Your task to perform on an android device: see creations saved in the google photos Image 0: 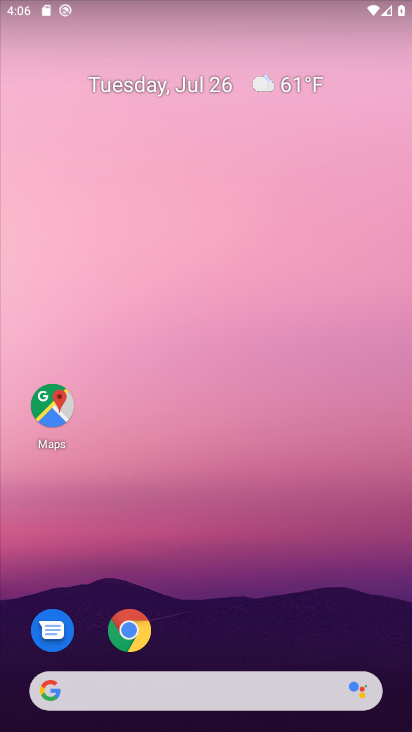
Step 0: click (152, 177)
Your task to perform on an android device: see creations saved in the google photos Image 1: 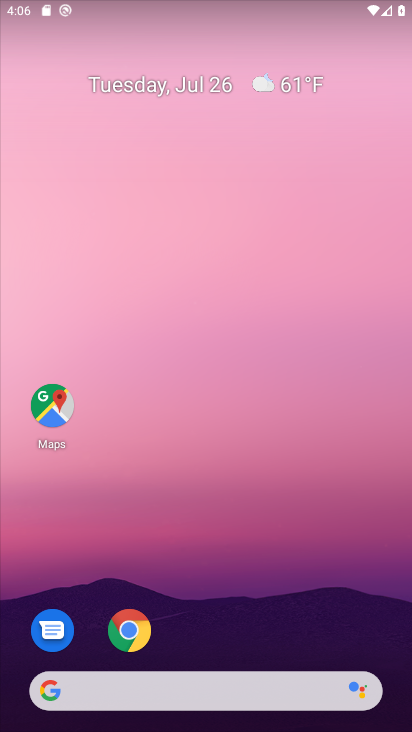
Step 1: drag from (219, 480) to (199, 116)
Your task to perform on an android device: see creations saved in the google photos Image 2: 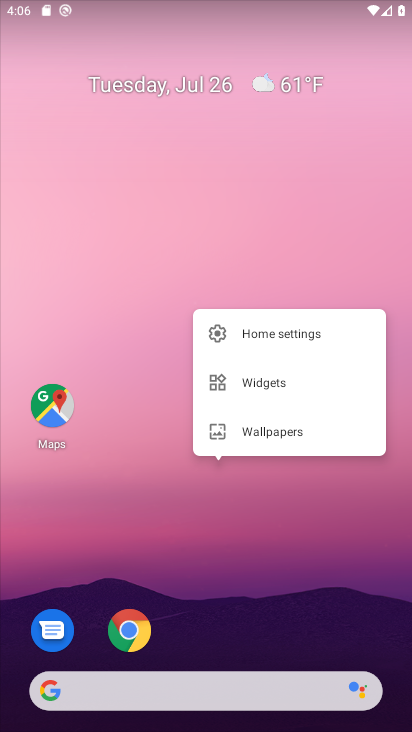
Step 2: drag from (215, 469) to (233, 198)
Your task to perform on an android device: see creations saved in the google photos Image 3: 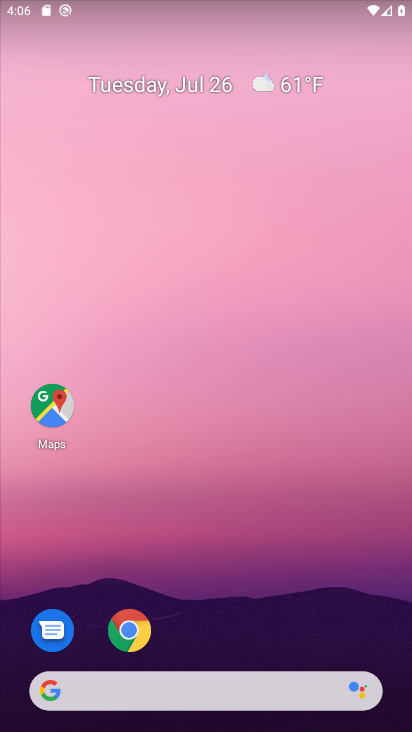
Step 3: drag from (254, 382) to (231, 261)
Your task to perform on an android device: see creations saved in the google photos Image 4: 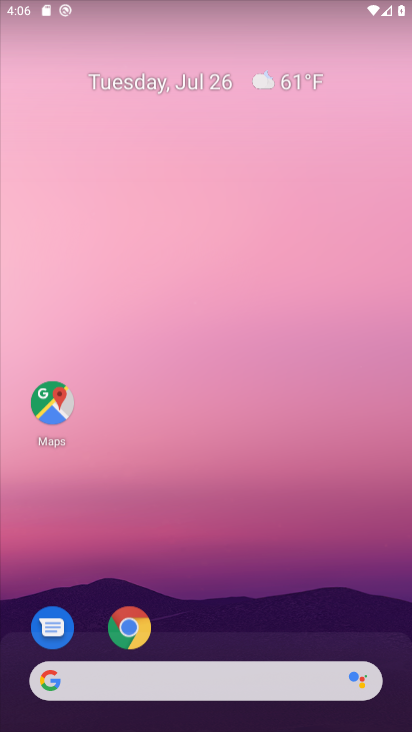
Step 4: drag from (229, 483) to (214, 332)
Your task to perform on an android device: see creations saved in the google photos Image 5: 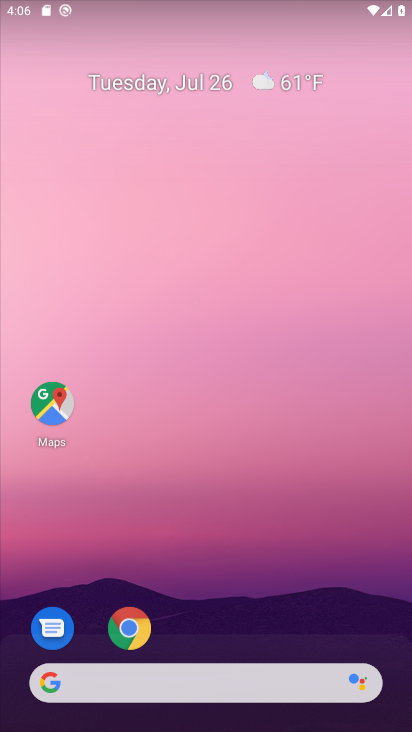
Step 5: drag from (288, 505) to (290, 41)
Your task to perform on an android device: see creations saved in the google photos Image 6: 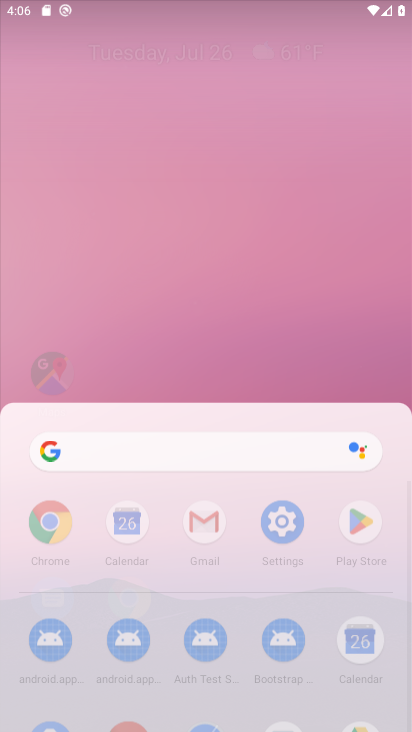
Step 6: drag from (325, 463) to (289, 249)
Your task to perform on an android device: see creations saved in the google photos Image 7: 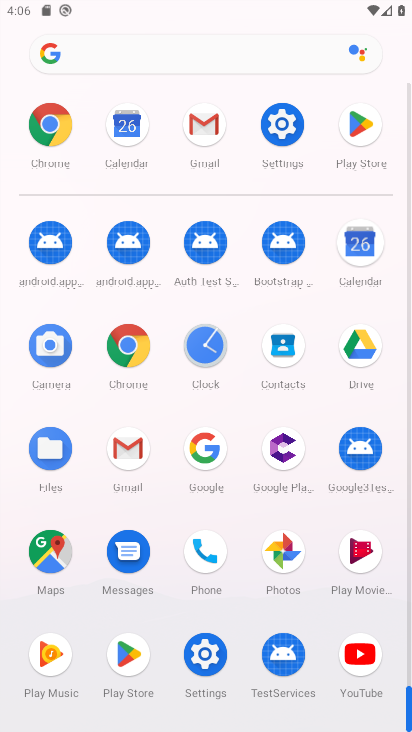
Step 7: drag from (244, 476) to (246, 137)
Your task to perform on an android device: see creations saved in the google photos Image 8: 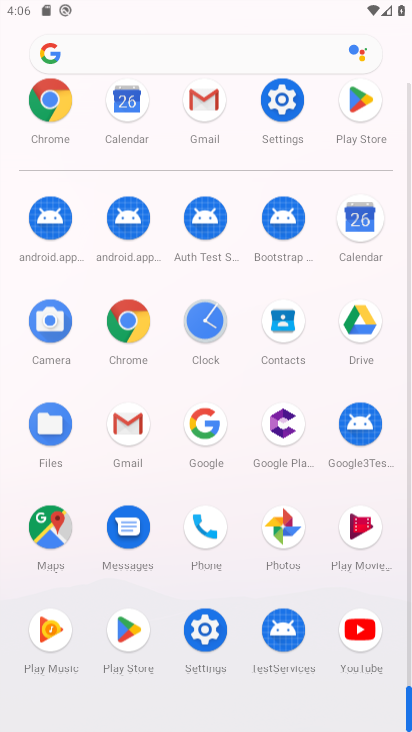
Step 8: drag from (213, 308) to (207, 191)
Your task to perform on an android device: see creations saved in the google photos Image 9: 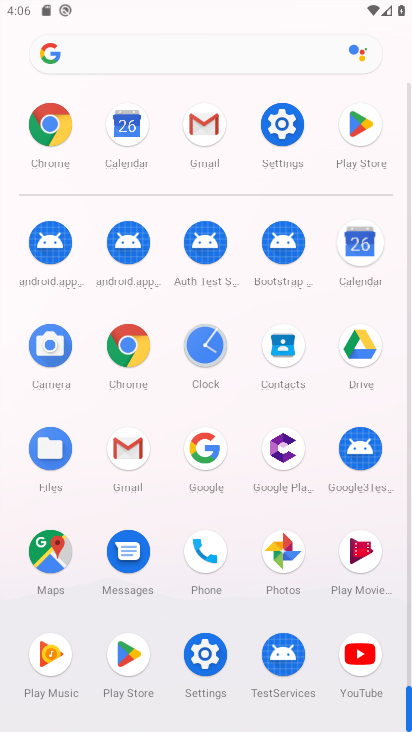
Step 9: drag from (253, 455) to (264, 183)
Your task to perform on an android device: see creations saved in the google photos Image 10: 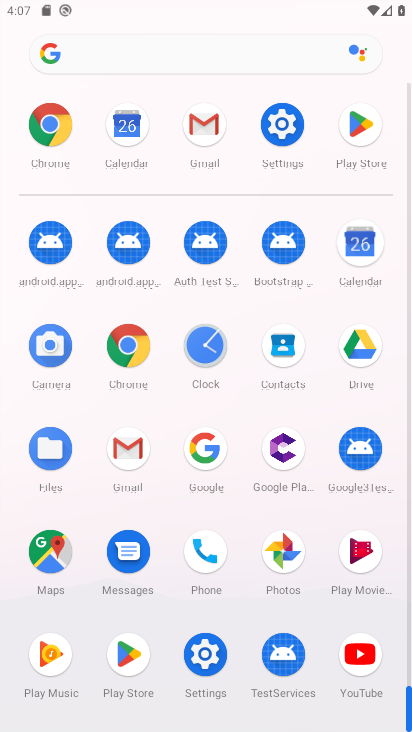
Step 10: click (286, 546)
Your task to perform on an android device: see creations saved in the google photos Image 11: 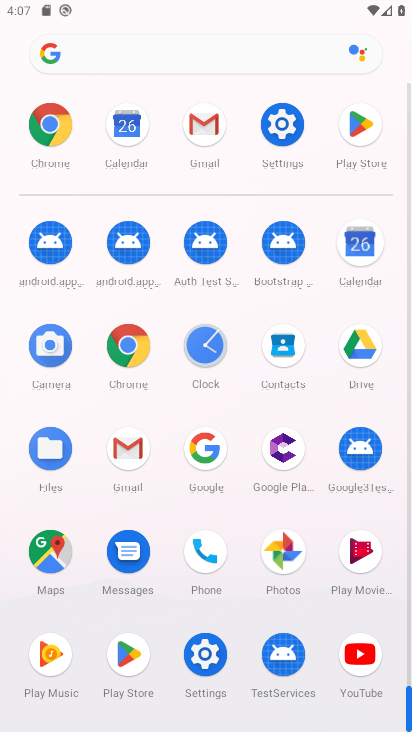
Step 11: click (285, 545)
Your task to perform on an android device: see creations saved in the google photos Image 12: 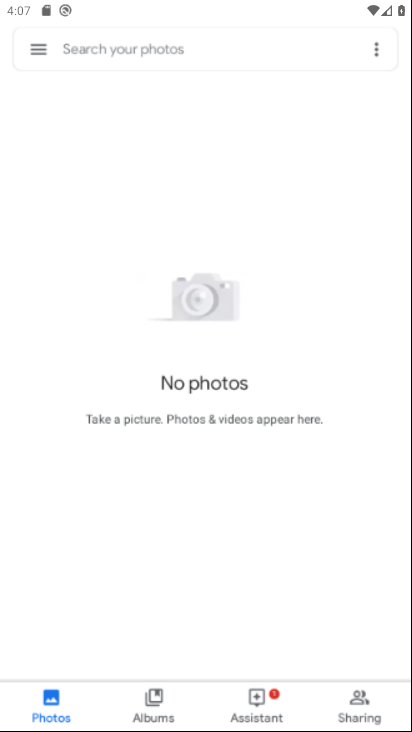
Step 12: click (285, 546)
Your task to perform on an android device: see creations saved in the google photos Image 13: 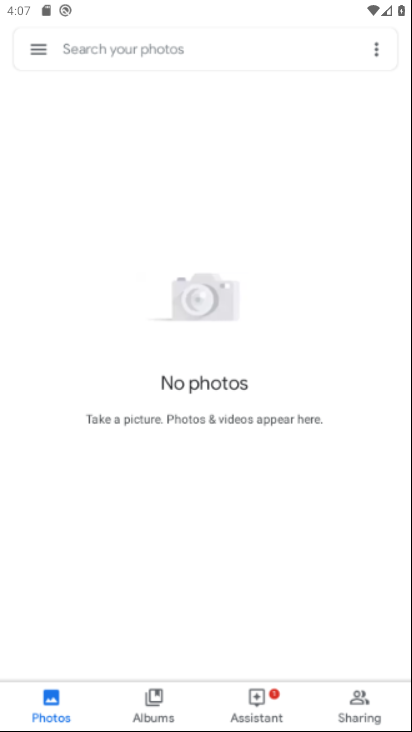
Step 13: click (285, 546)
Your task to perform on an android device: see creations saved in the google photos Image 14: 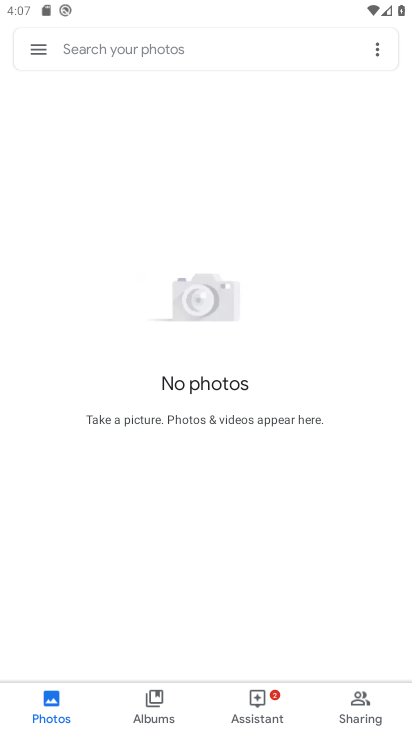
Step 14: click (39, 57)
Your task to perform on an android device: see creations saved in the google photos Image 15: 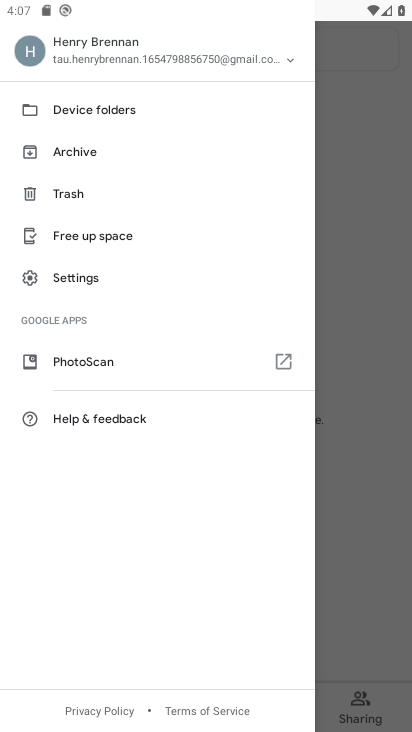
Step 15: click (70, 190)
Your task to perform on an android device: see creations saved in the google photos Image 16: 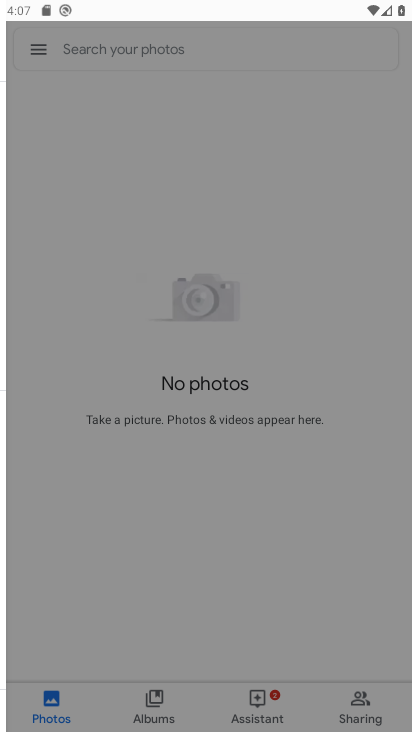
Step 16: click (84, 193)
Your task to perform on an android device: see creations saved in the google photos Image 17: 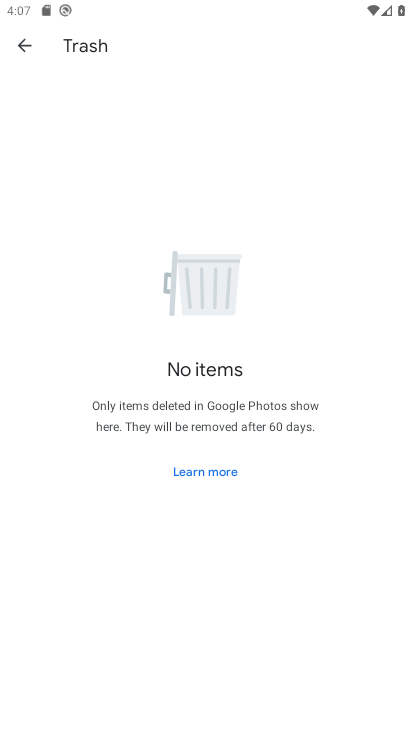
Step 17: click (85, 194)
Your task to perform on an android device: see creations saved in the google photos Image 18: 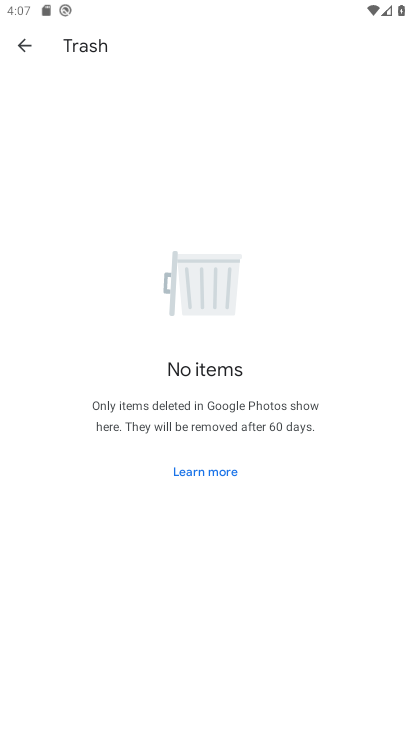
Step 18: click (23, 42)
Your task to perform on an android device: see creations saved in the google photos Image 19: 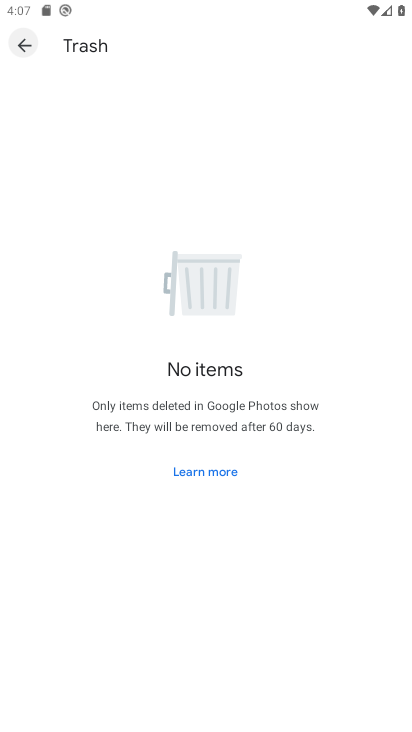
Step 19: click (23, 42)
Your task to perform on an android device: see creations saved in the google photos Image 20: 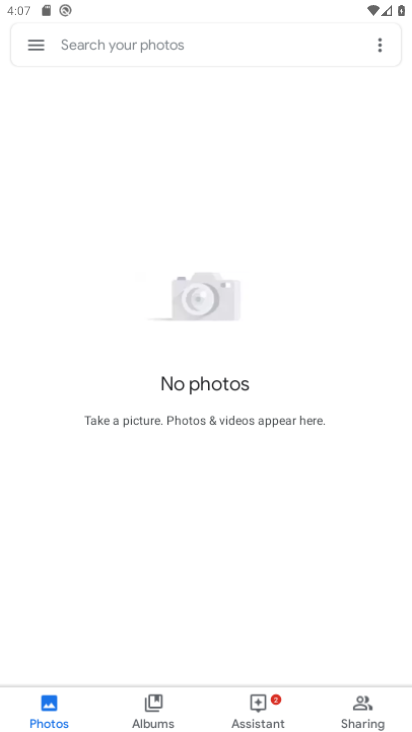
Step 20: click (27, 43)
Your task to perform on an android device: see creations saved in the google photos Image 21: 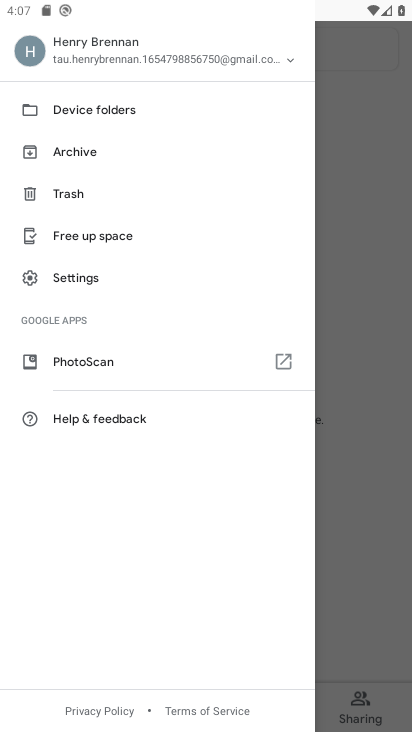
Step 21: click (357, 230)
Your task to perform on an android device: see creations saved in the google photos Image 22: 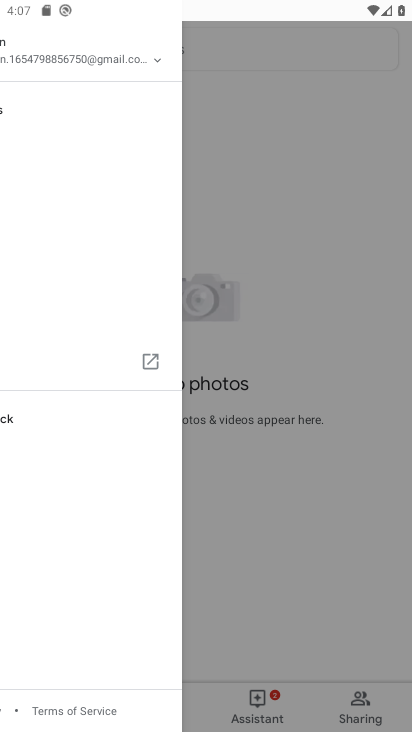
Step 22: click (363, 240)
Your task to perform on an android device: see creations saved in the google photos Image 23: 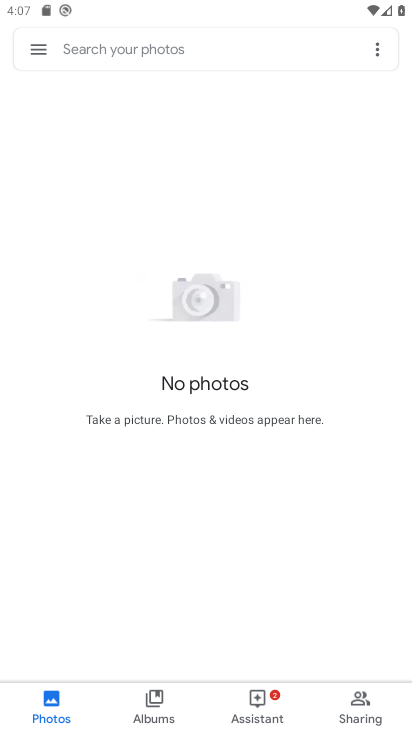
Step 23: click (48, 706)
Your task to perform on an android device: see creations saved in the google photos Image 24: 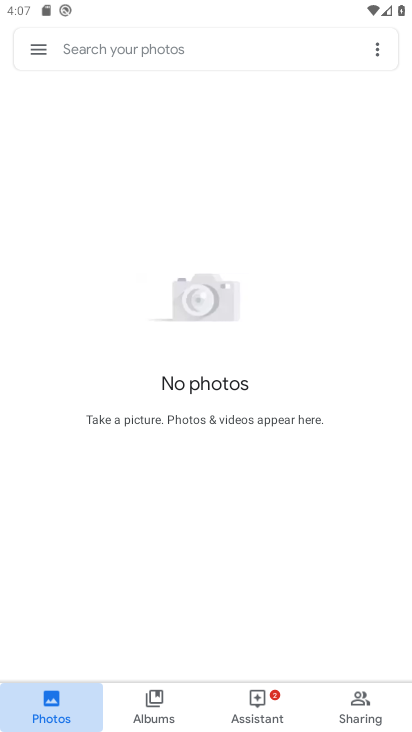
Step 24: click (48, 705)
Your task to perform on an android device: see creations saved in the google photos Image 25: 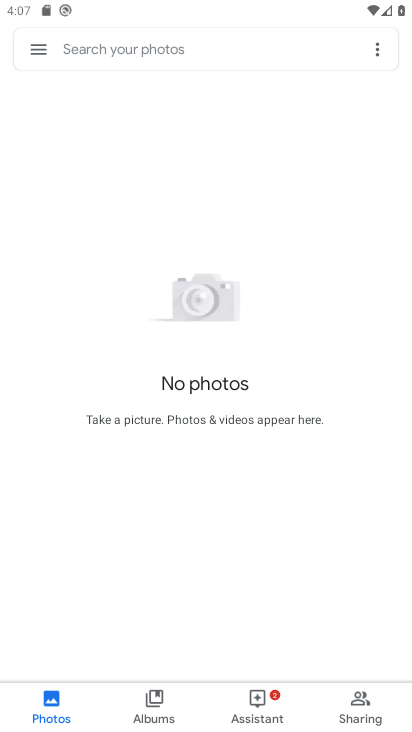
Step 25: click (48, 705)
Your task to perform on an android device: see creations saved in the google photos Image 26: 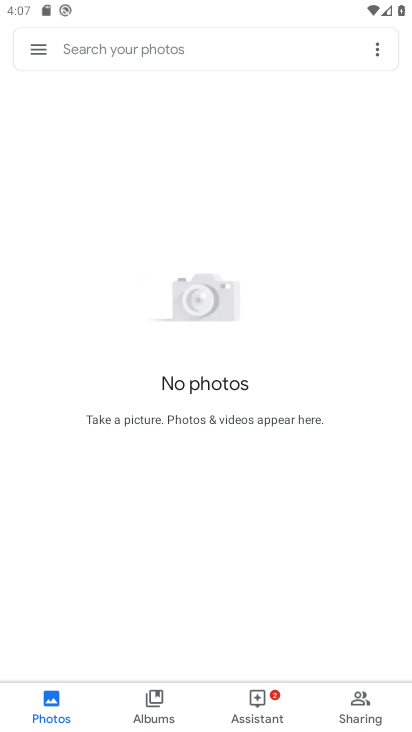
Step 26: task complete